Your task to perform on an android device: Go to ESPN.com Image 0: 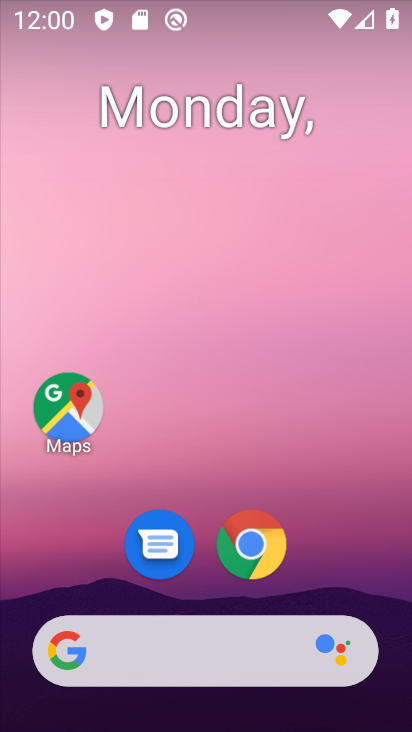
Step 0: drag from (320, 612) to (295, 14)
Your task to perform on an android device: Go to ESPN.com Image 1: 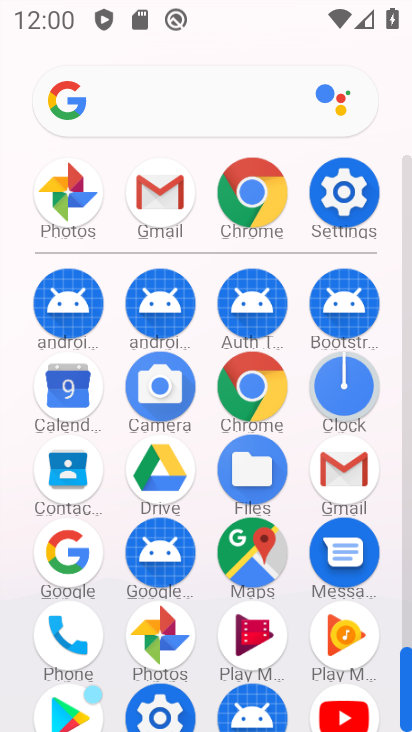
Step 1: click (254, 381)
Your task to perform on an android device: Go to ESPN.com Image 2: 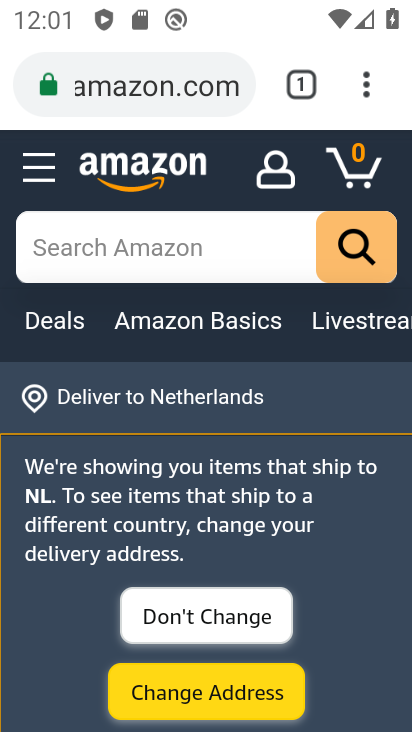
Step 2: click (196, 81)
Your task to perform on an android device: Go to ESPN.com Image 3: 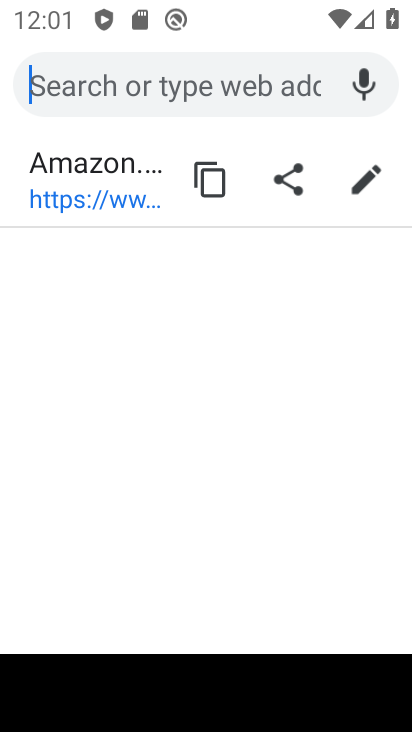
Step 3: type "espn.com"
Your task to perform on an android device: Go to ESPN.com Image 4: 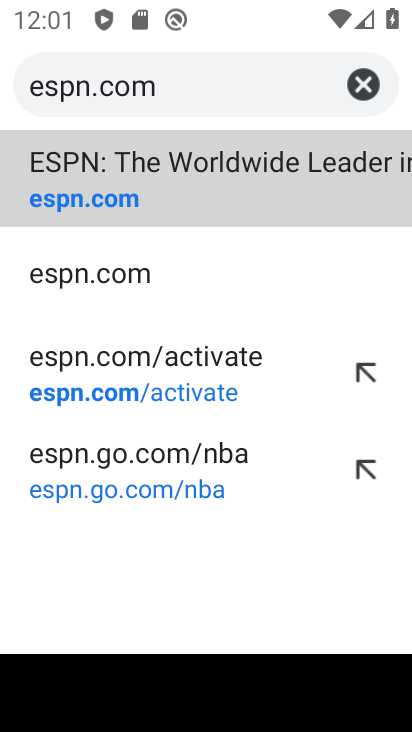
Step 4: click (283, 187)
Your task to perform on an android device: Go to ESPN.com Image 5: 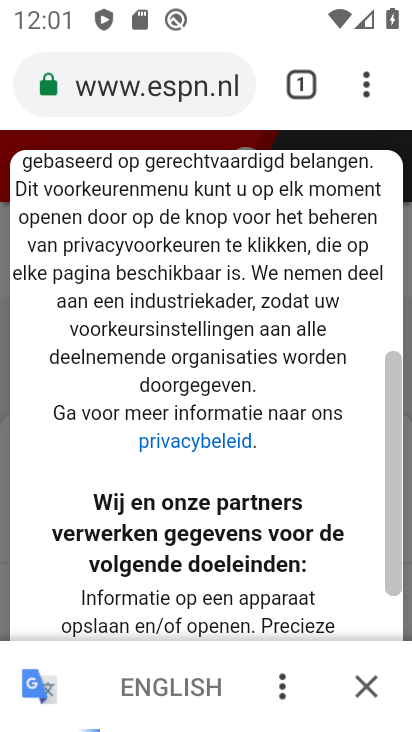
Step 5: task complete